Your task to perform on an android device: What's the weather going to be tomorrow? Image 0: 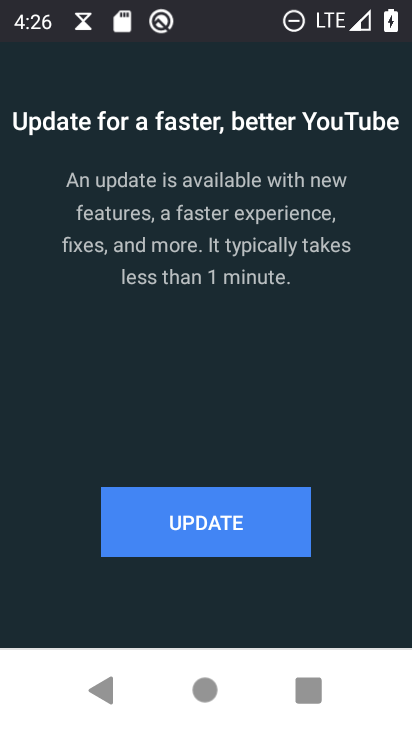
Step 0: press home button
Your task to perform on an android device: What's the weather going to be tomorrow? Image 1: 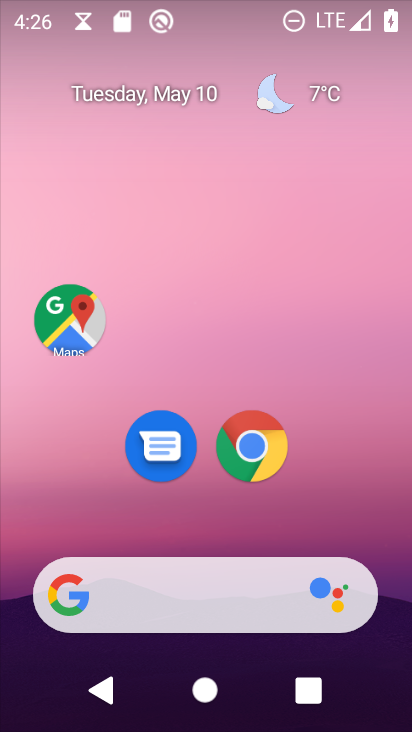
Step 1: drag from (287, 520) to (199, 729)
Your task to perform on an android device: What's the weather going to be tomorrow? Image 2: 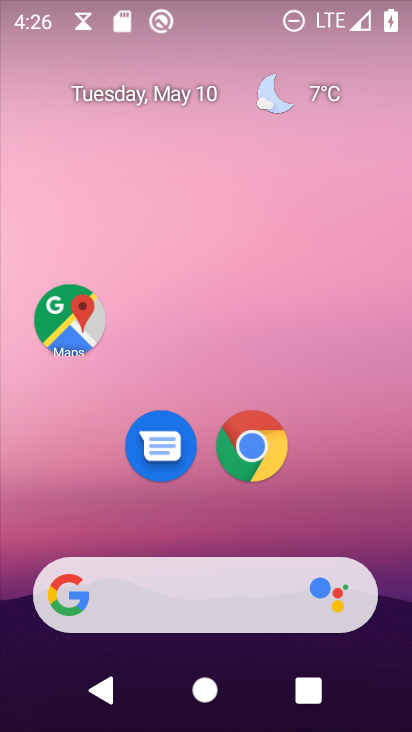
Step 2: click (286, 93)
Your task to perform on an android device: What's the weather going to be tomorrow? Image 3: 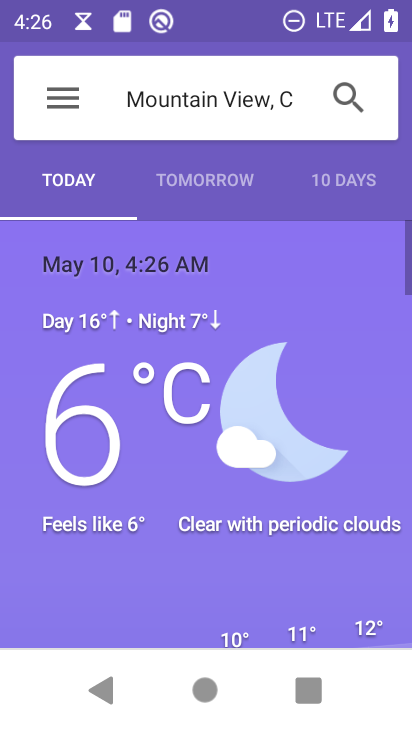
Step 3: click (215, 169)
Your task to perform on an android device: What's the weather going to be tomorrow? Image 4: 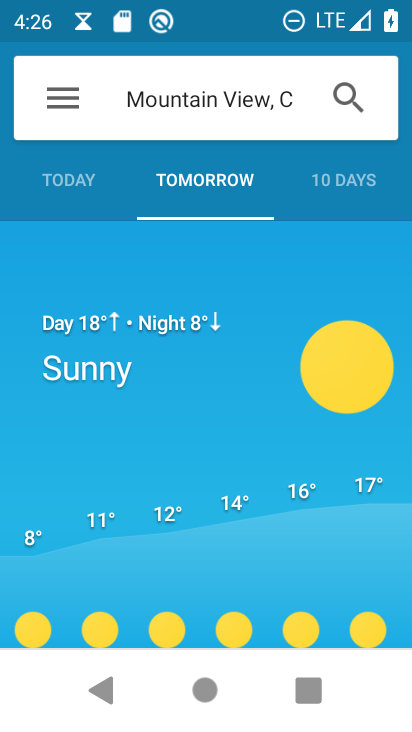
Step 4: task complete